Your task to perform on an android device: uninstall "Microsoft Outlook" Image 0: 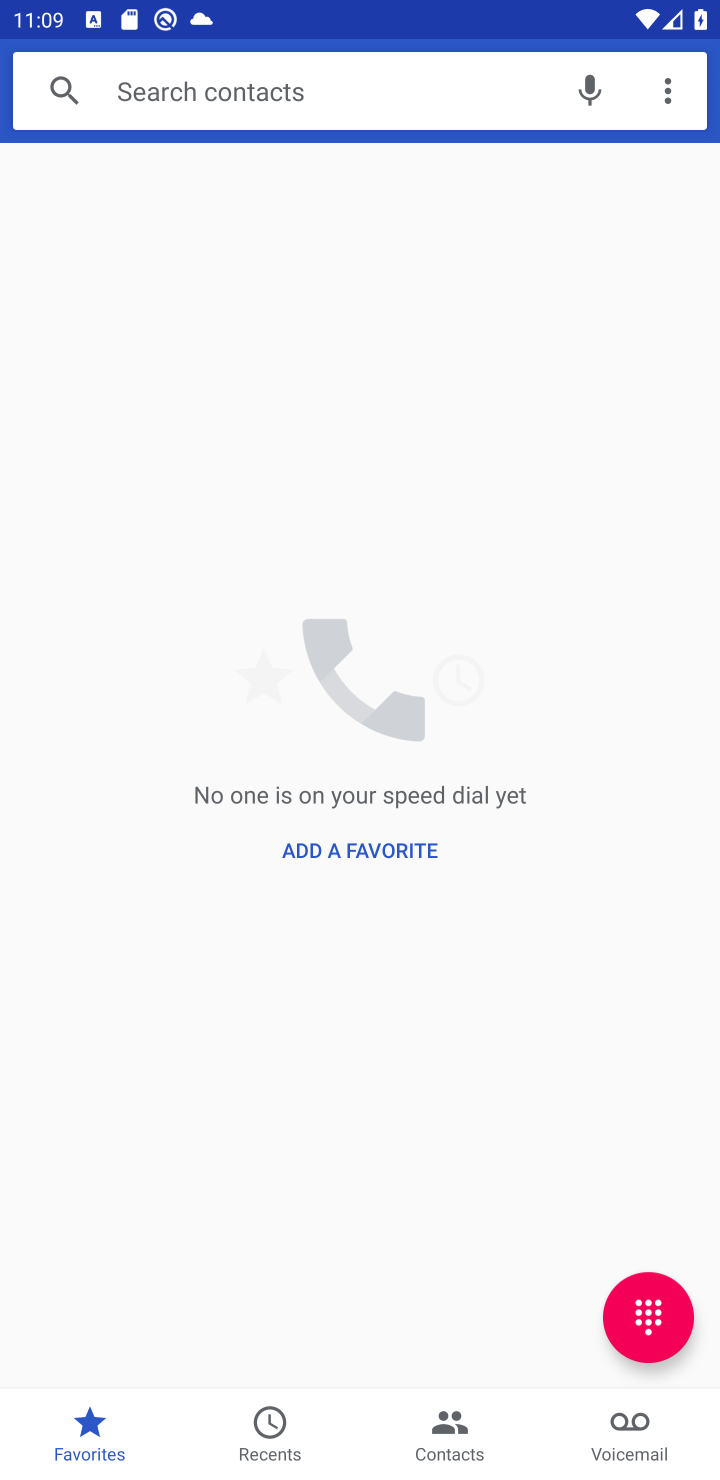
Step 0: press home button
Your task to perform on an android device: uninstall "Microsoft Outlook" Image 1: 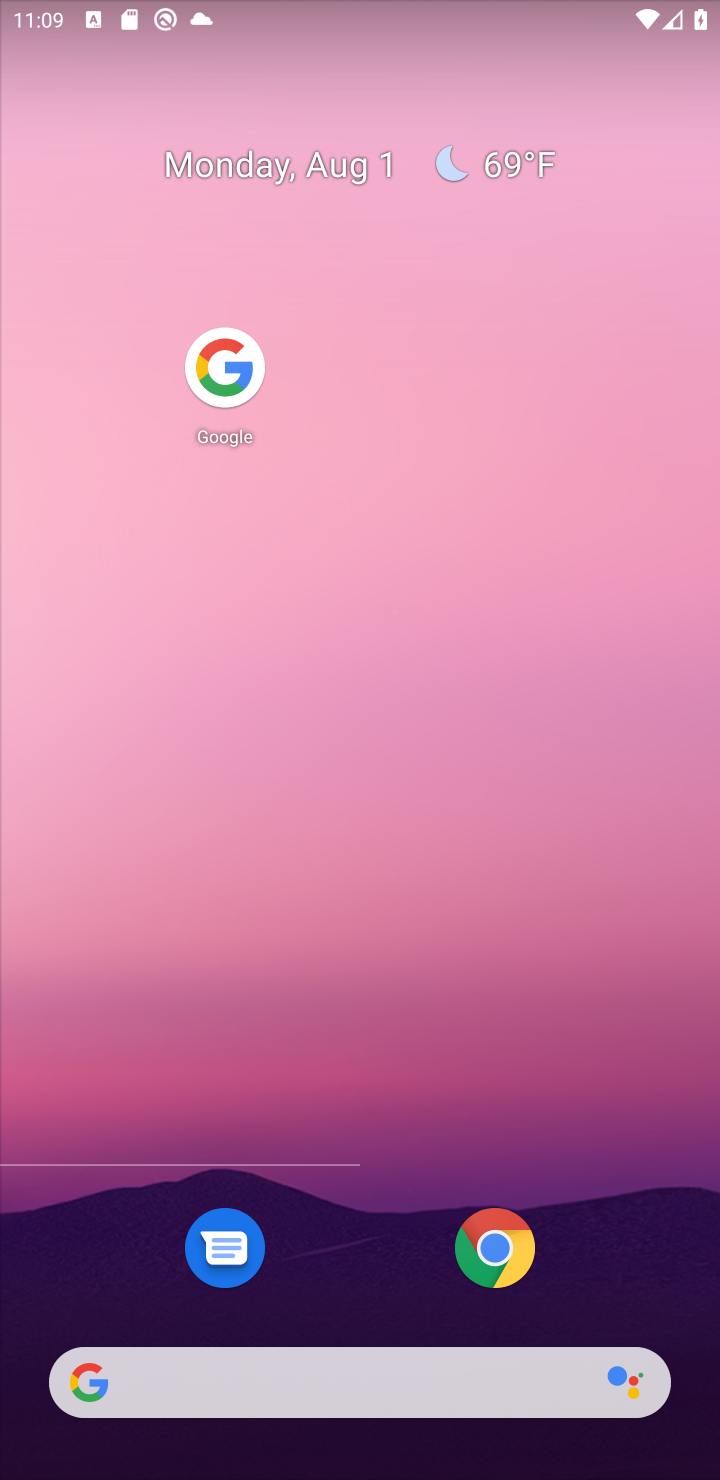
Step 1: drag from (451, 977) to (596, 230)
Your task to perform on an android device: uninstall "Microsoft Outlook" Image 2: 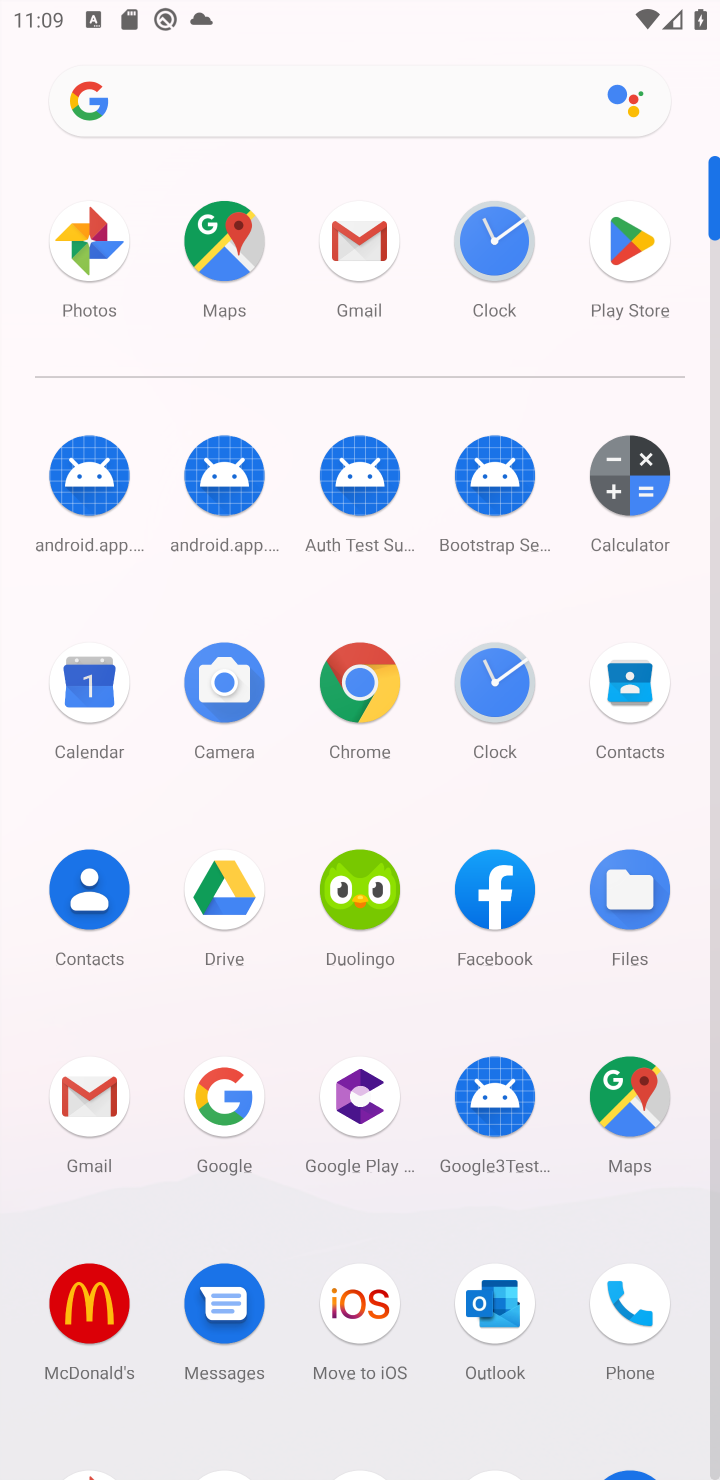
Step 2: click (638, 241)
Your task to perform on an android device: uninstall "Microsoft Outlook" Image 3: 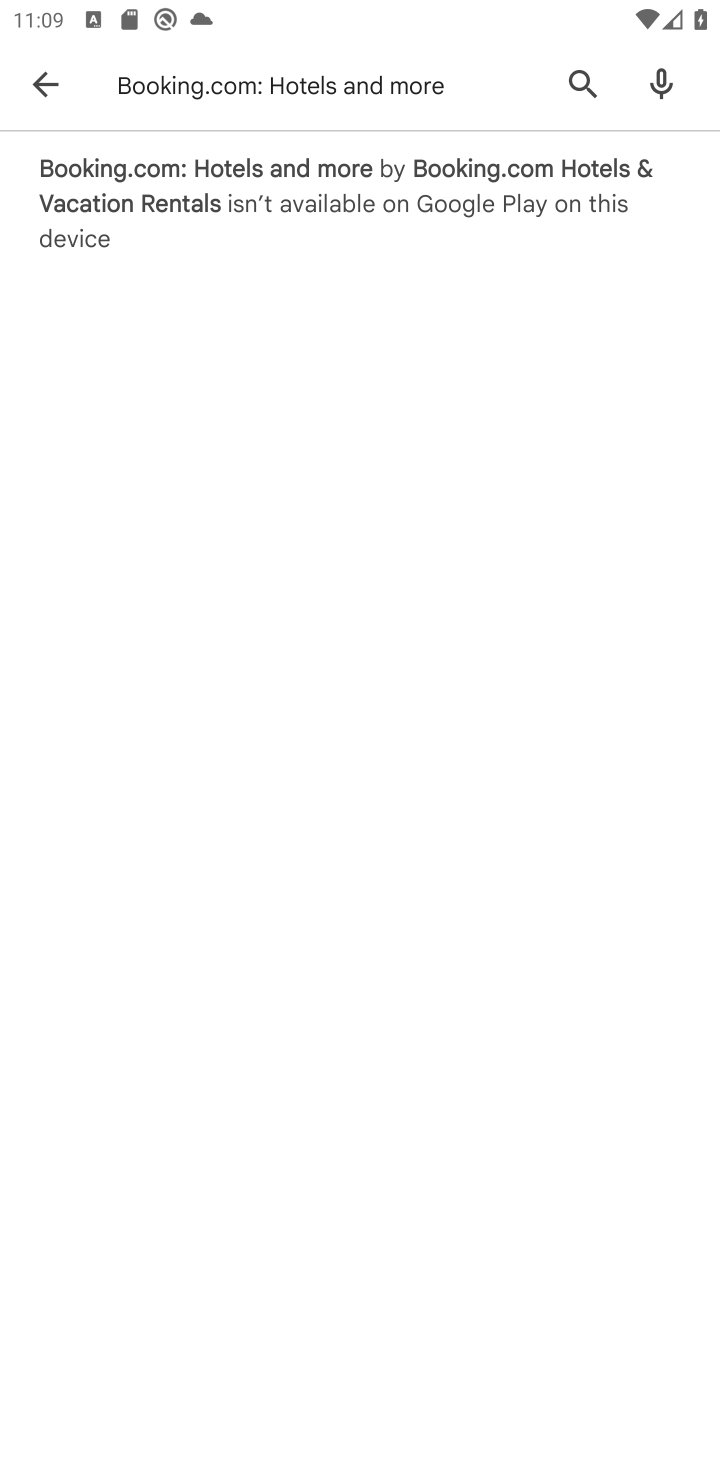
Step 3: click (415, 79)
Your task to perform on an android device: uninstall "Microsoft Outlook" Image 4: 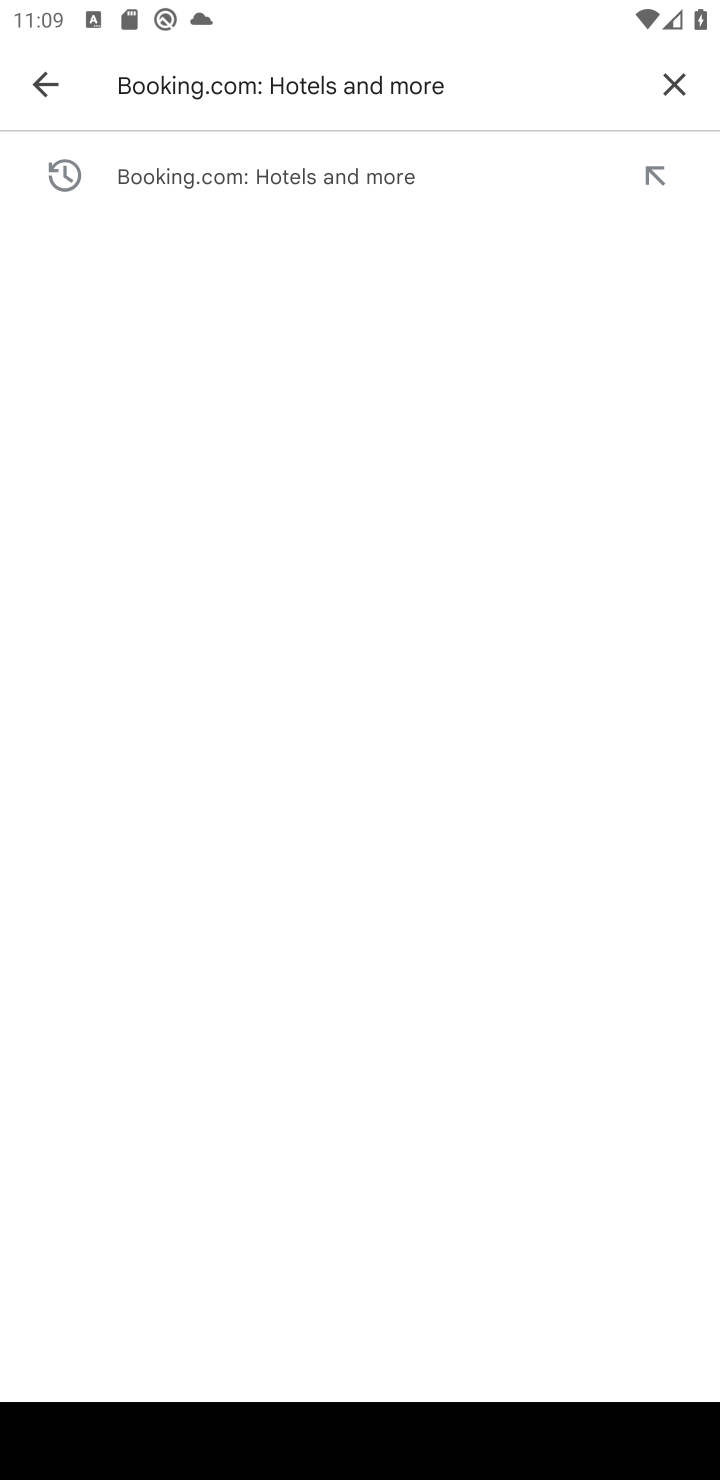
Step 4: click (668, 72)
Your task to perform on an android device: uninstall "Microsoft Outlook" Image 5: 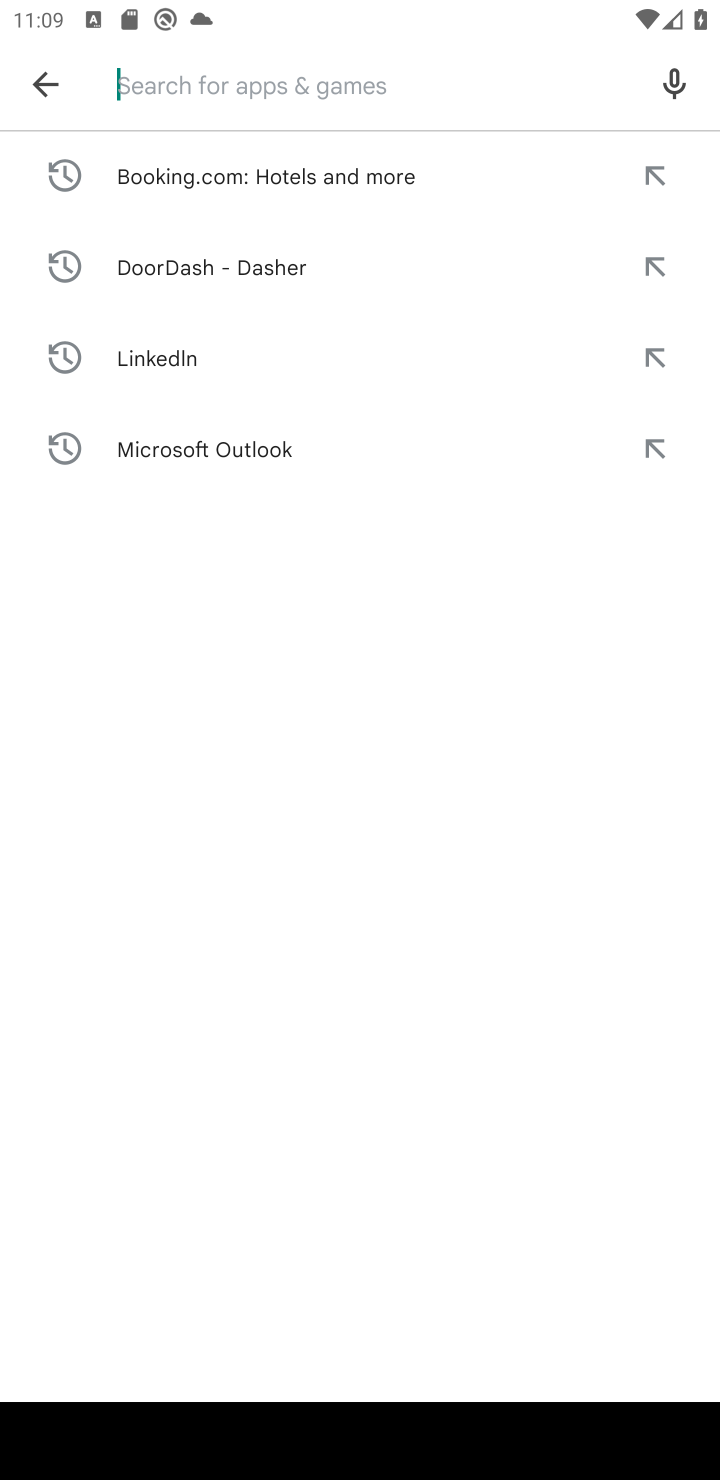
Step 5: type "Microsoft Outlook"
Your task to perform on an android device: uninstall "Microsoft Outlook" Image 6: 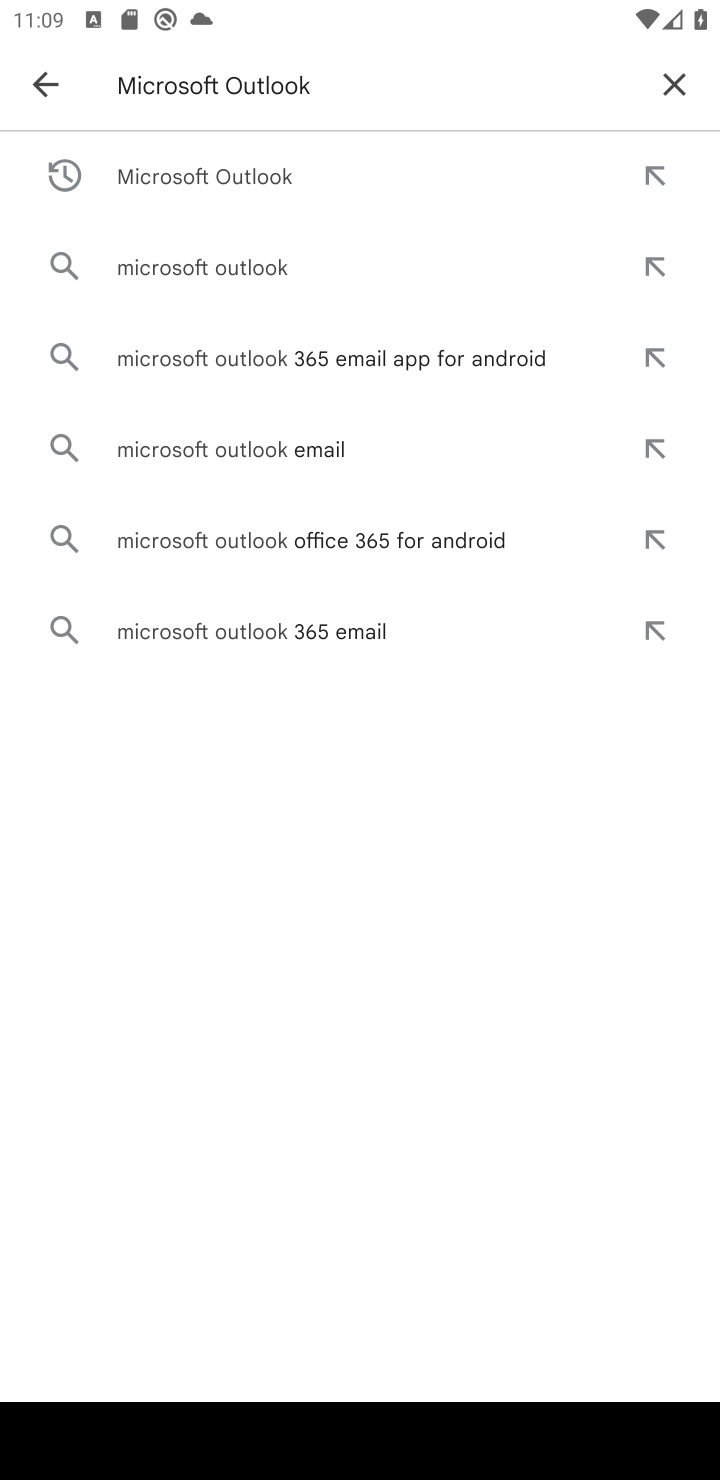
Step 6: press enter
Your task to perform on an android device: uninstall "Microsoft Outlook" Image 7: 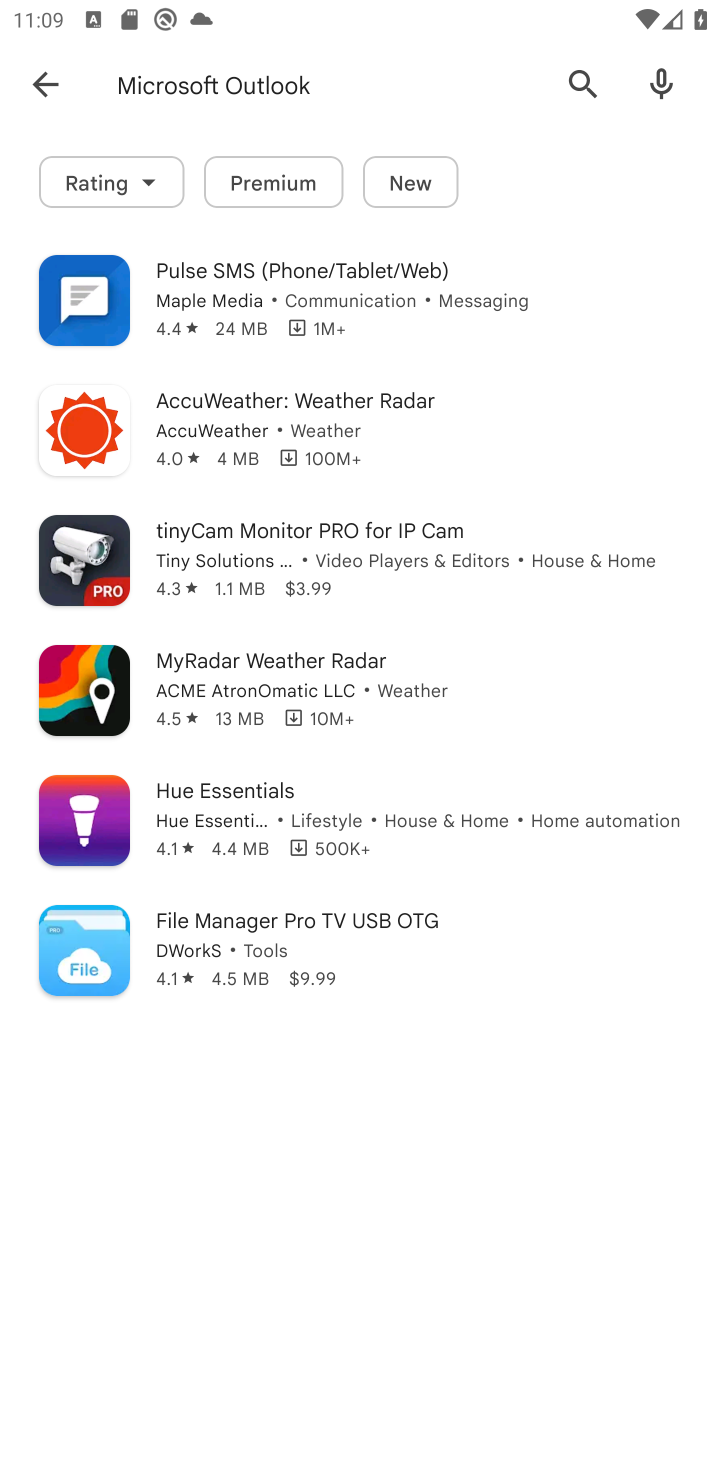
Step 7: task complete